Your task to perform on an android device: See recent photos Image 0: 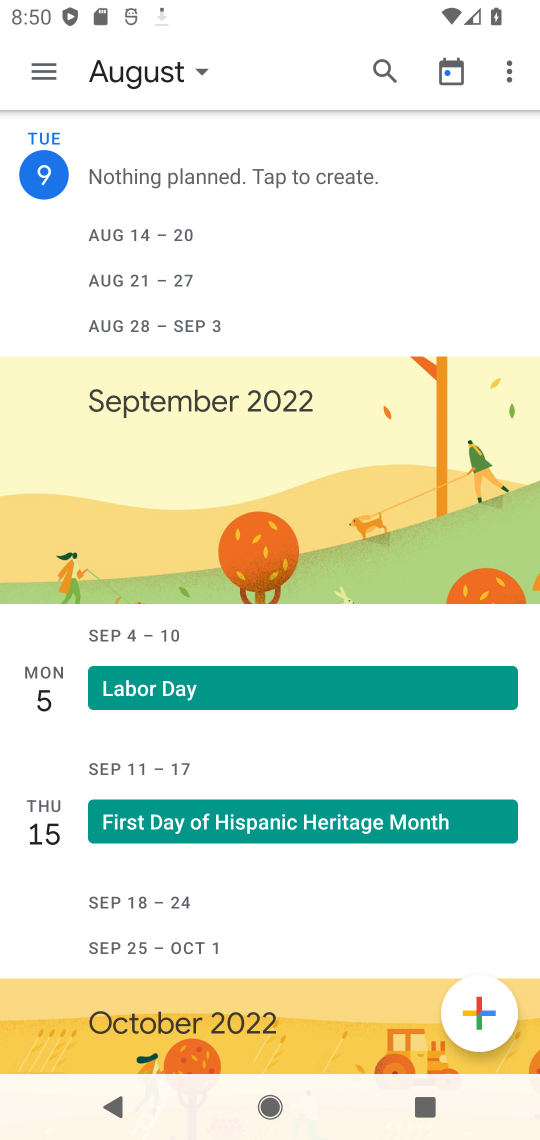
Step 0: press home button
Your task to perform on an android device: See recent photos Image 1: 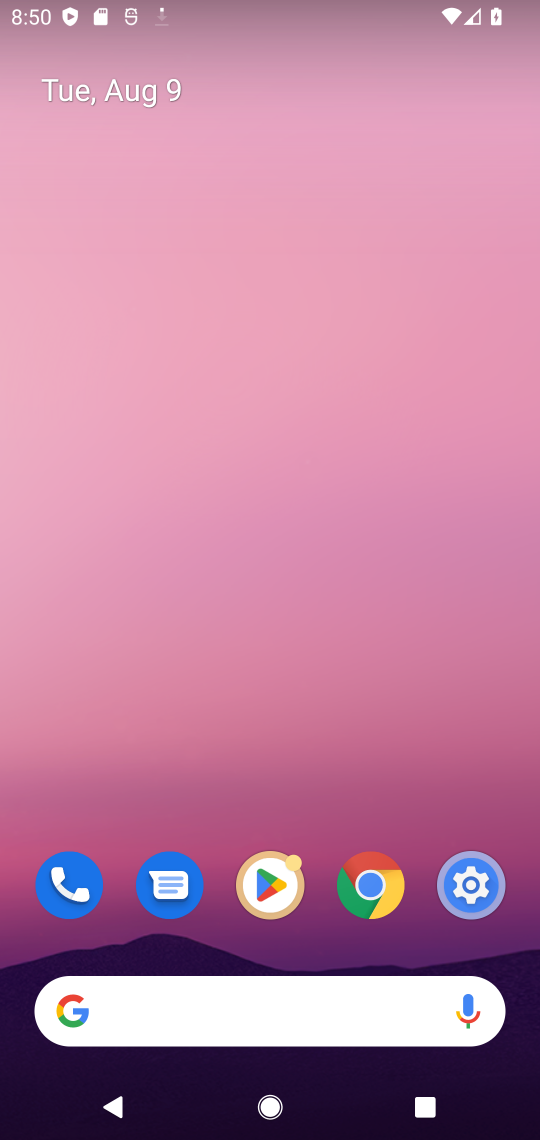
Step 1: drag from (312, 788) to (302, 35)
Your task to perform on an android device: See recent photos Image 2: 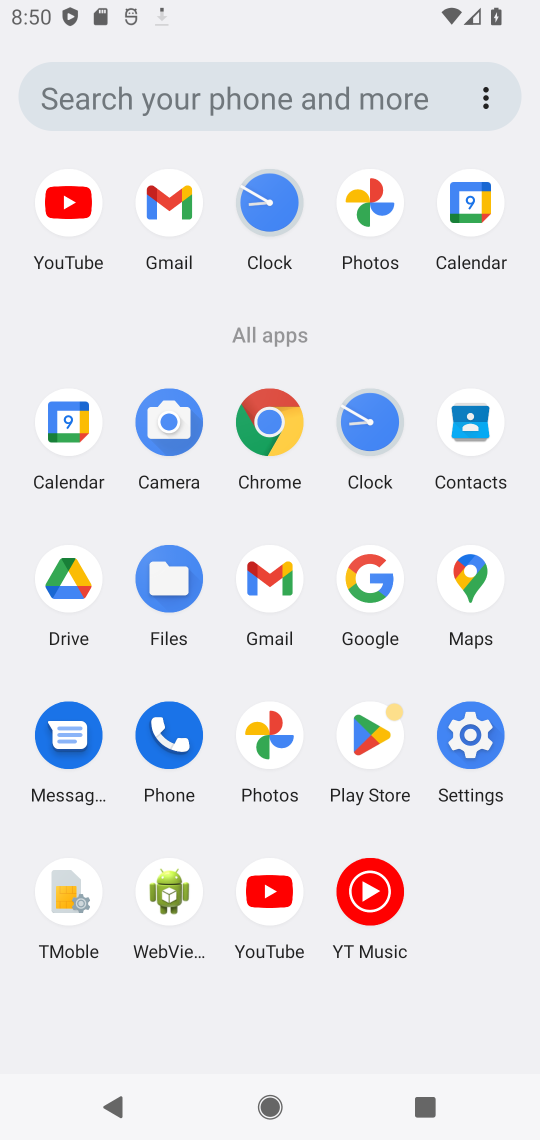
Step 2: click (280, 735)
Your task to perform on an android device: See recent photos Image 3: 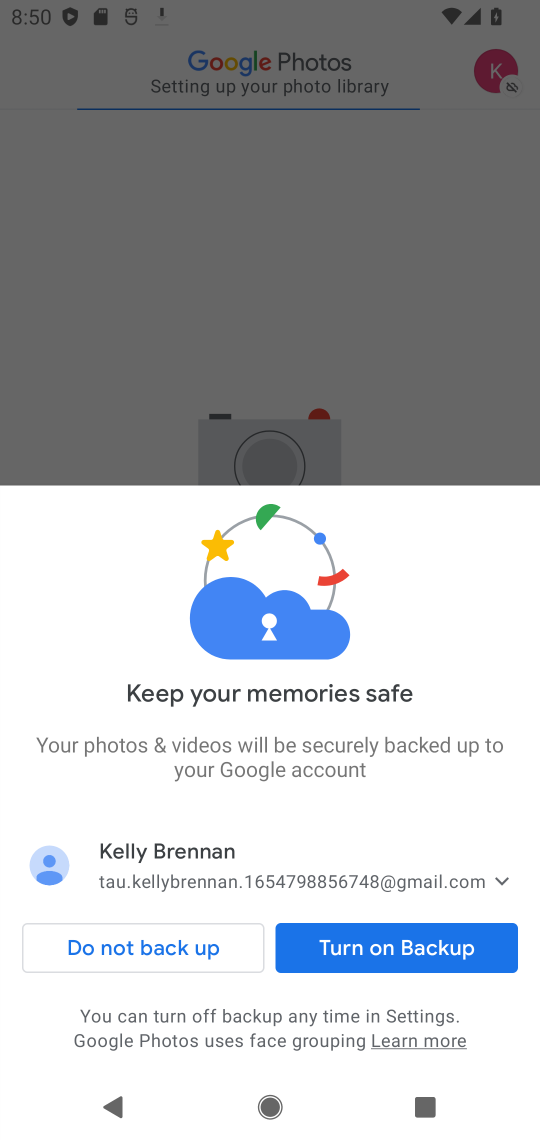
Step 3: click (383, 940)
Your task to perform on an android device: See recent photos Image 4: 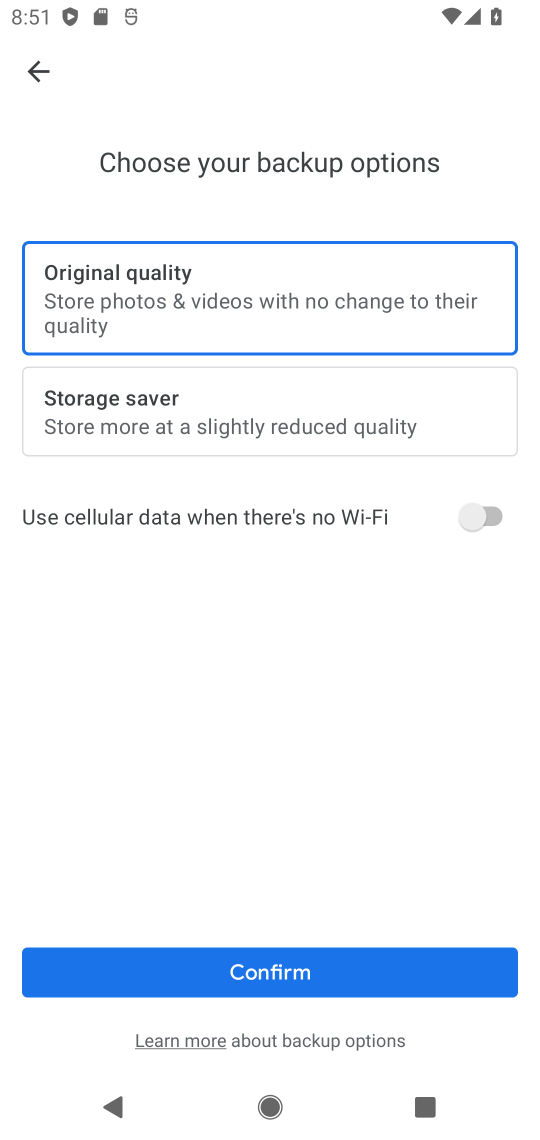
Step 4: click (129, 409)
Your task to perform on an android device: See recent photos Image 5: 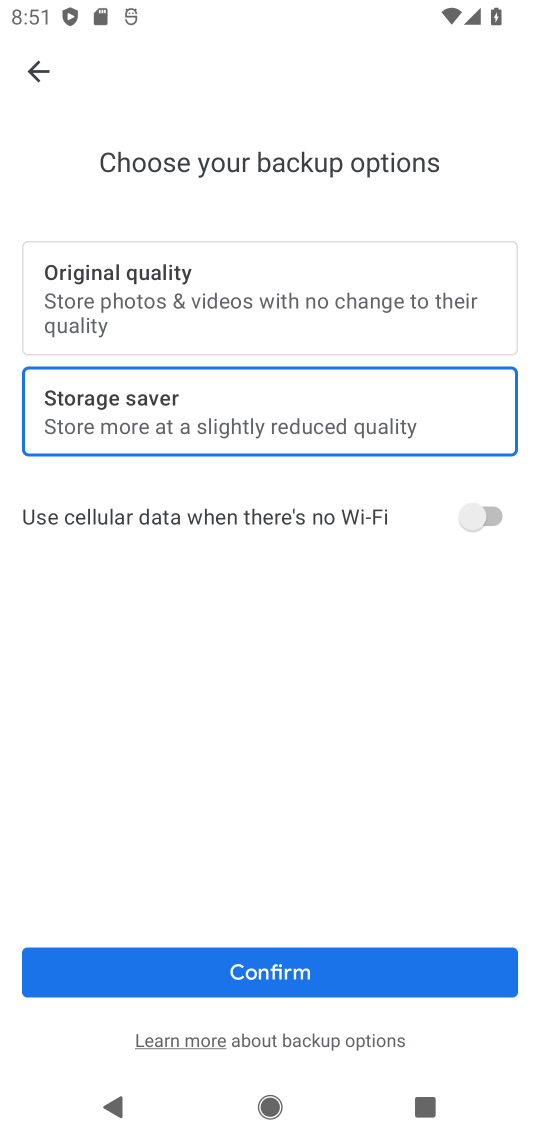
Step 5: click (290, 967)
Your task to perform on an android device: See recent photos Image 6: 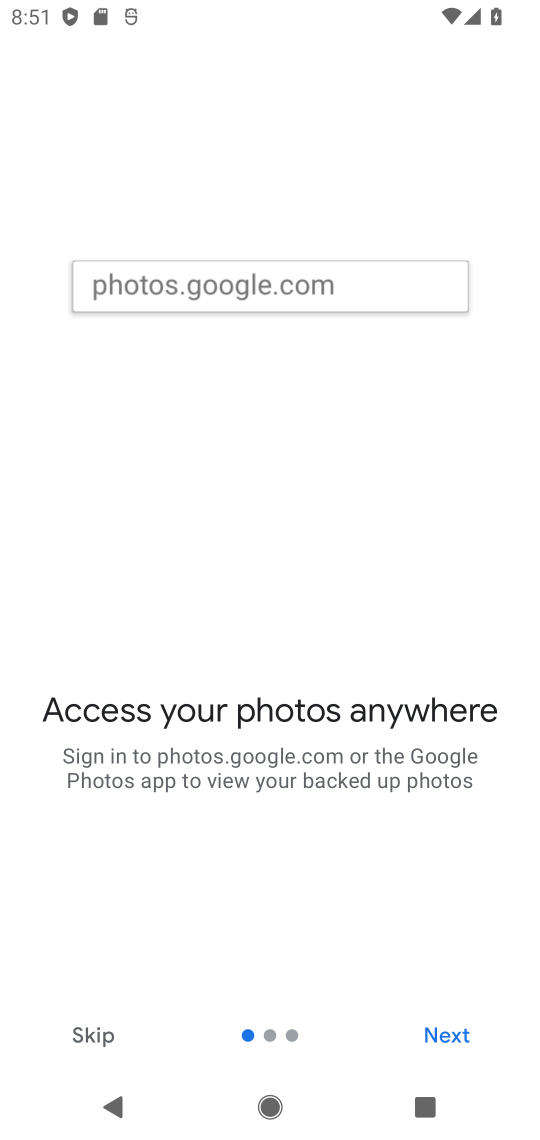
Step 6: click (82, 1028)
Your task to perform on an android device: See recent photos Image 7: 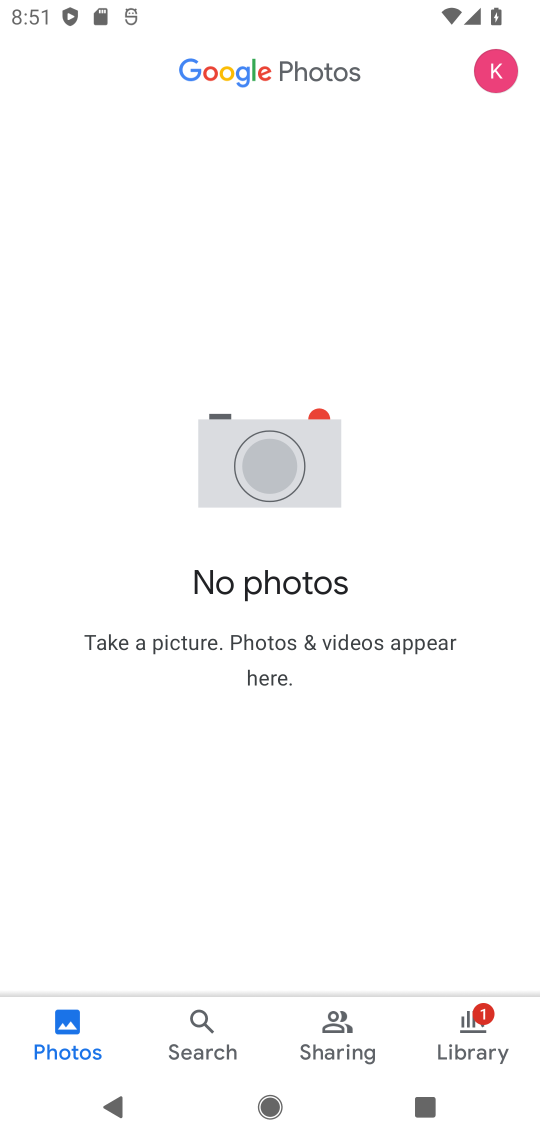
Step 7: task complete